Your task to perform on an android device: toggle priority inbox in the gmail app Image 0: 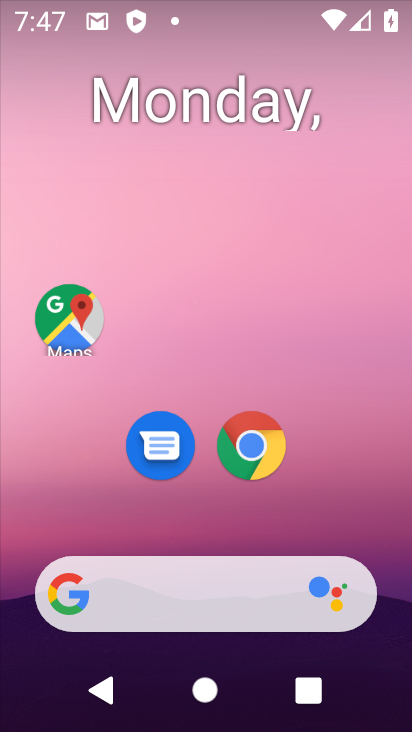
Step 0: drag from (215, 619) to (331, 223)
Your task to perform on an android device: toggle priority inbox in the gmail app Image 1: 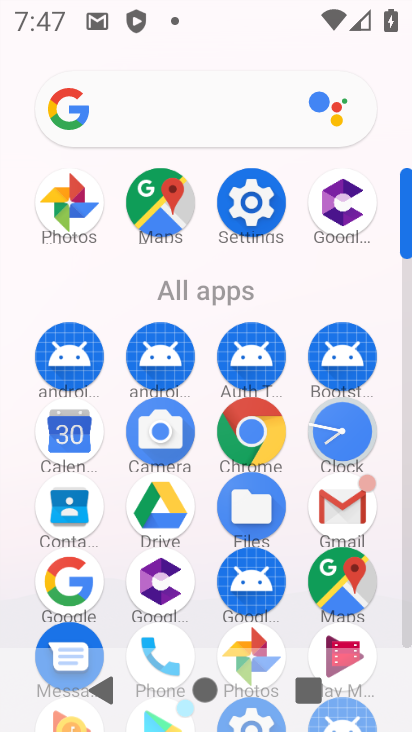
Step 1: click (345, 506)
Your task to perform on an android device: toggle priority inbox in the gmail app Image 2: 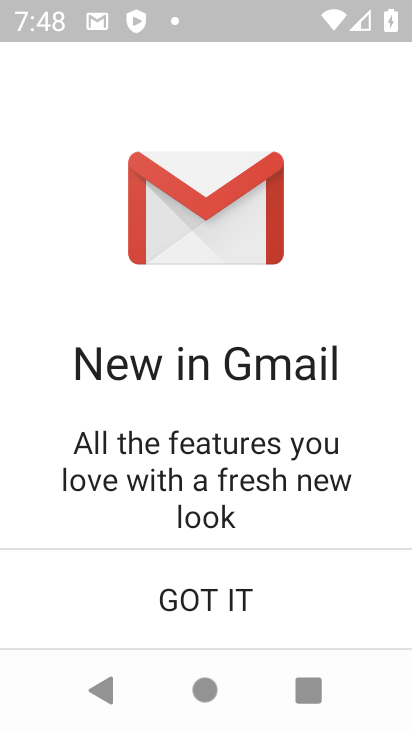
Step 2: click (303, 608)
Your task to perform on an android device: toggle priority inbox in the gmail app Image 3: 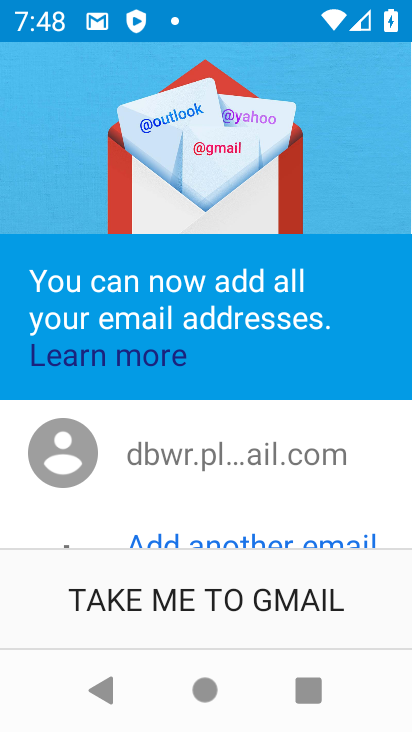
Step 3: click (329, 616)
Your task to perform on an android device: toggle priority inbox in the gmail app Image 4: 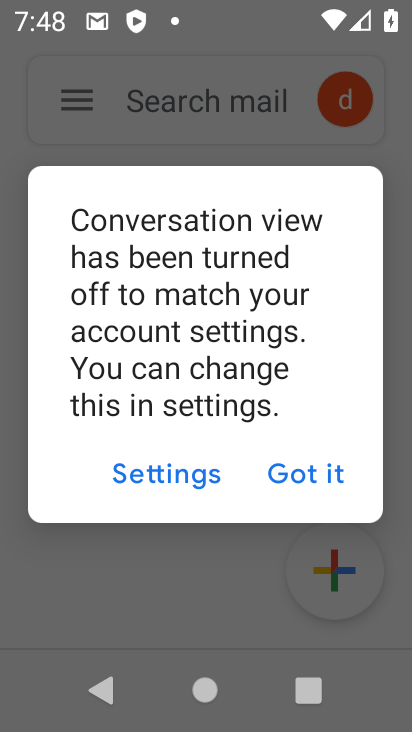
Step 4: click (294, 480)
Your task to perform on an android device: toggle priority inbox in the gmail app Image 5: 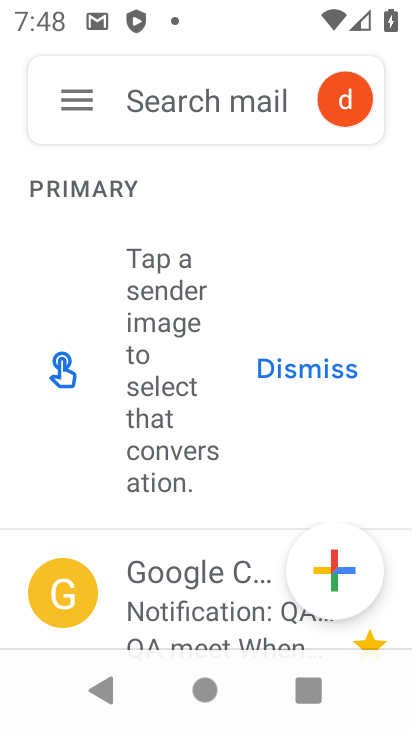
Step 5: click (69, 105)
Your task to perform on an android device: toggle priority inbox in the gmail app Image 6: 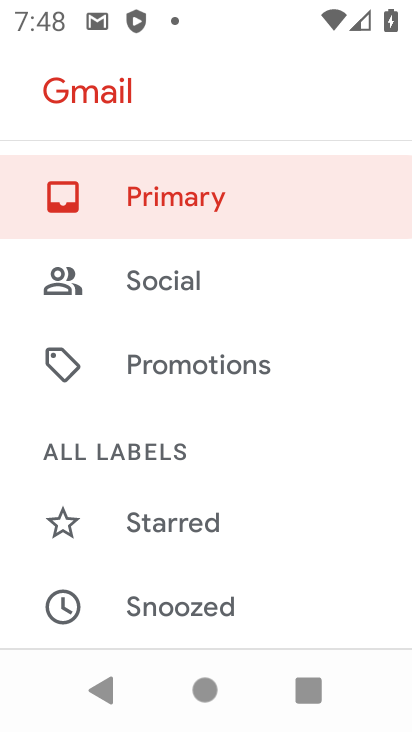
Step 6: drag from (262, 577) to (158, 16)
Your task to perform on an android device: toggle priority inbox in the gmail app Image 7: 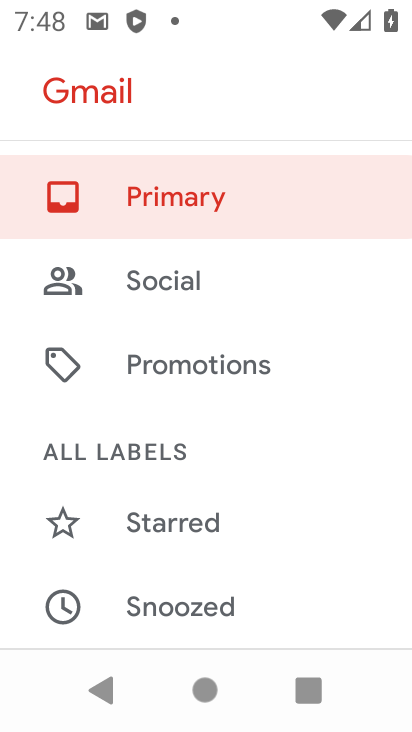
Step 7: drag from (203, 576) to (256, 68)
Your task to perform on an android device: toggle priority inbox in the gmail app Image 8: 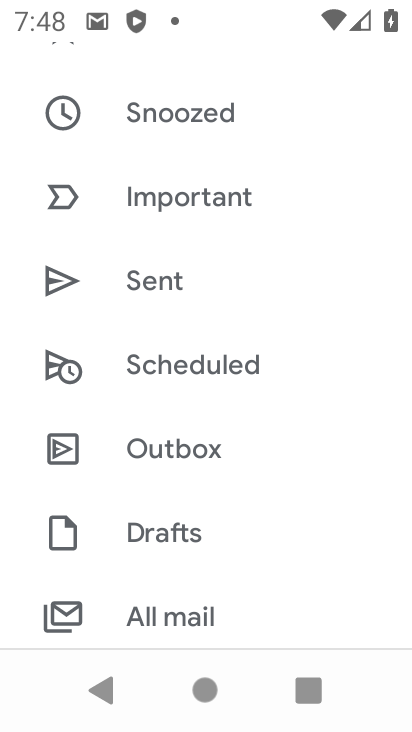
Step 8: drag from (218, 427) to (247, 11)
Your task to perform on an android device: toggle priority inbox in the gmail app Image 9: 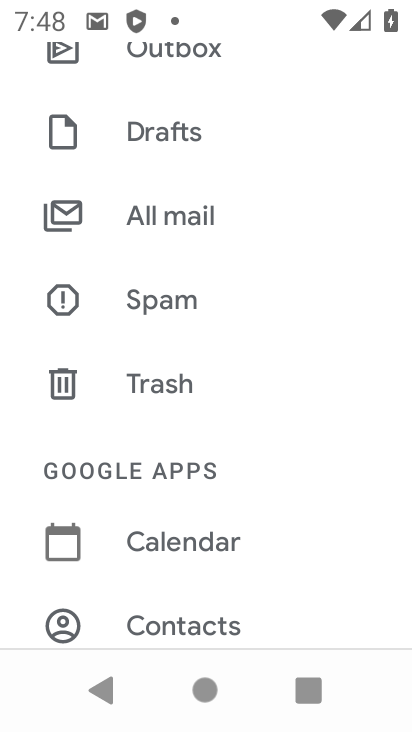
Step 9: drag from (252, 565) to (312, 22)
Your task to perform on an android device: toggle priority inbox in the gmail app Image 10: 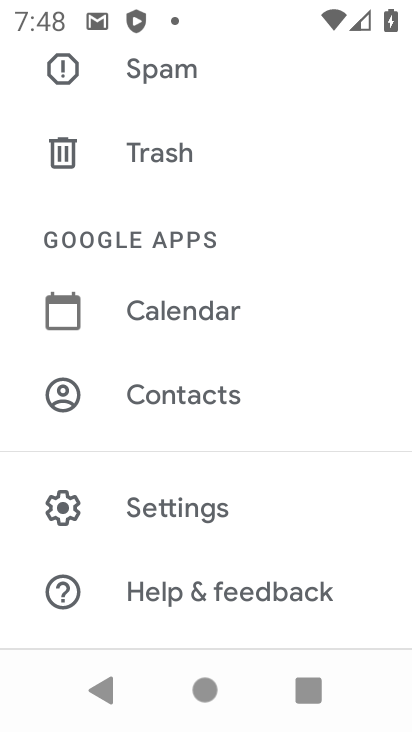
Step 10: click (248, 507)
Your task to perform on an android device: toggle priority inbox in the gmail app Image 11: 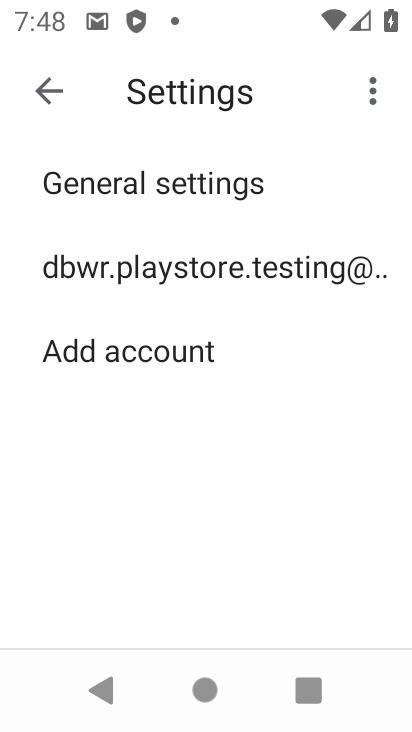
Step 11: click (349, 273)
Your task to perform on an android device: toggle priority inbox in the gmail app Image 12: 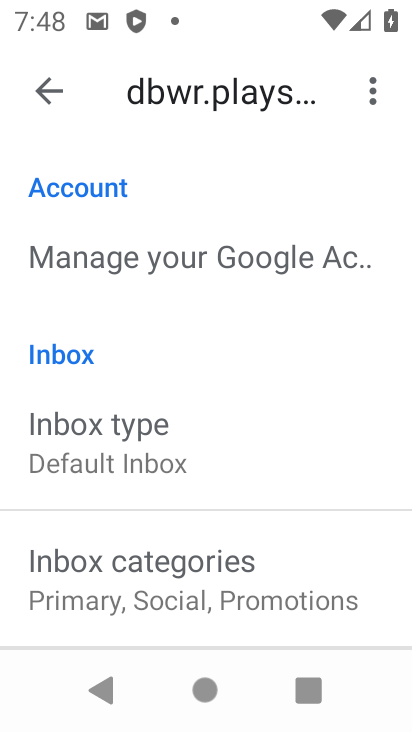
Step 12: click (135, 448)
Your task to perform on an android device: toggle priority inbox in the gmail app Image 13: 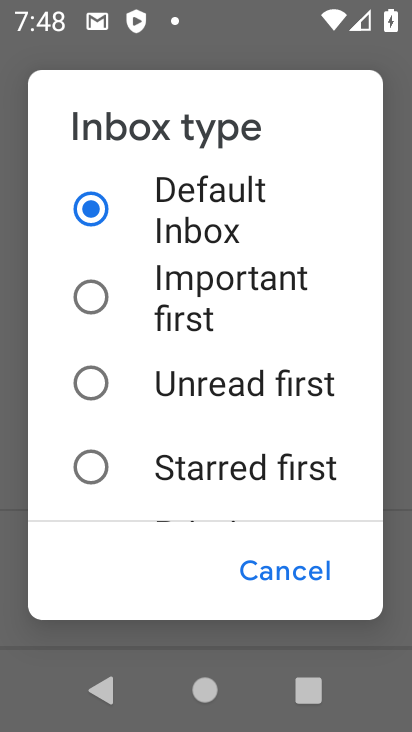
Step 13: drag from (209, 378) to (328, 8)
Your task to perform on an android device: toggle priority inbox in the gmail app Image 14: 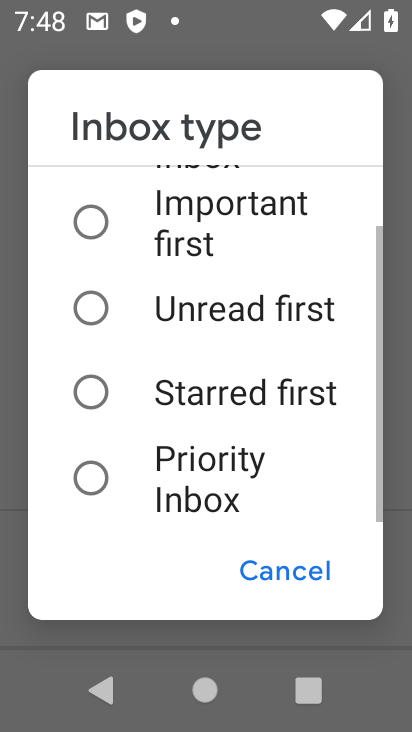
Step 14: click (174, 488)
Your task to perform on an android device: toggle priority inbox in the gmail app Image 15: 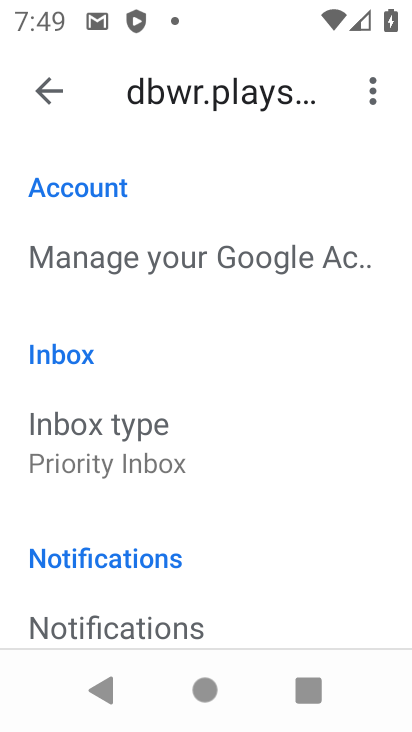
Step 15: task complete